Your task to perform on an android device: Go to Google Image 0: 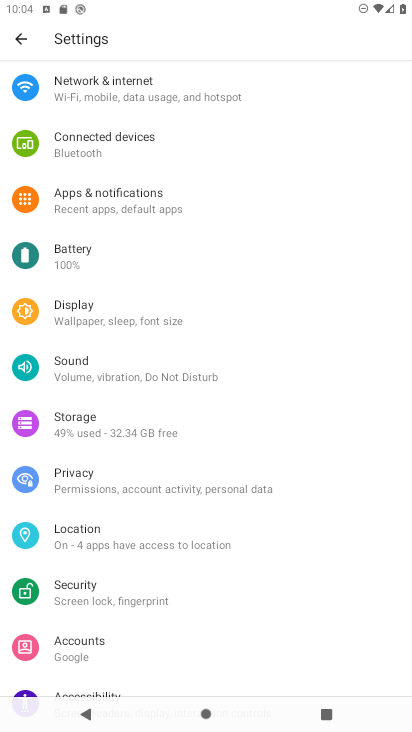
Step 0: press home button
Your task to perform on an android device: Go to Google Image 1: 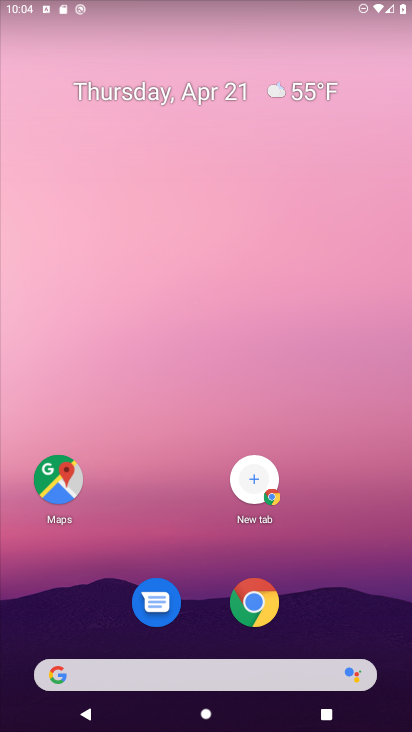
Step 1: click (135, 670)
Your task to perform on an android device: Go to Google Image 2: 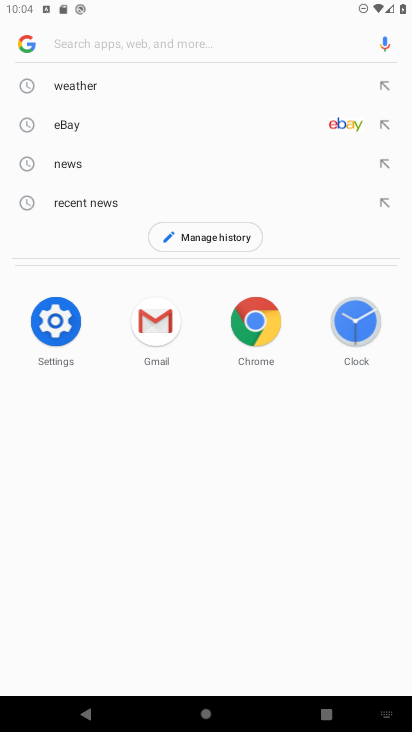
Step 2: task complete